Your task to perform on an android device: check the backup settings in the google photos Image 0: 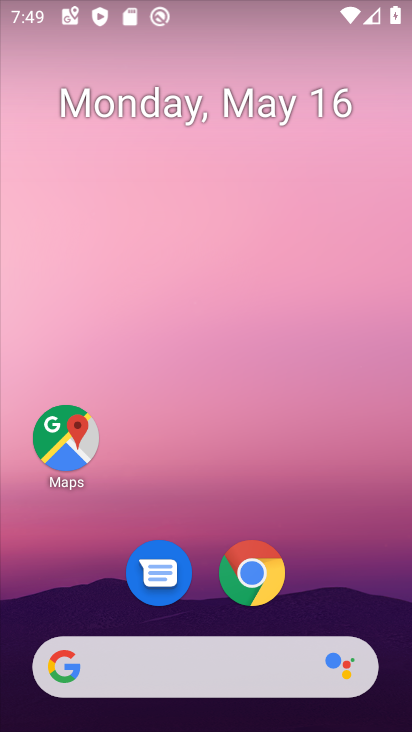
Step 0: drag from (352, 570) to (346, 168)
Your task to perform on an android device: check the backup settings in the google photos Image 1: 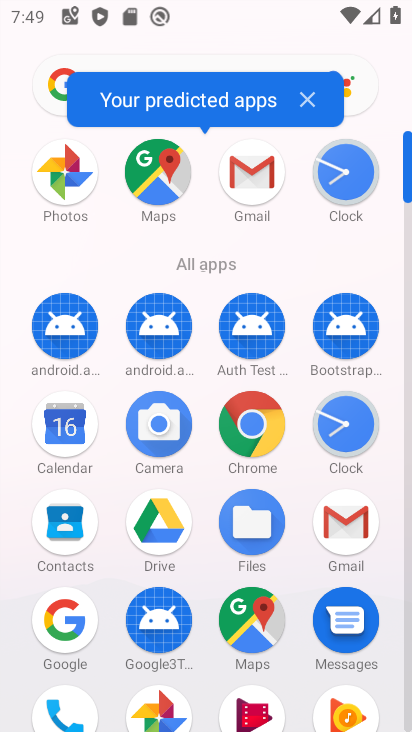
Step 1: drag from (221, 652) to (224, 452)
Your task to perform on an android device: check the backup settings in the google photos Image 2: 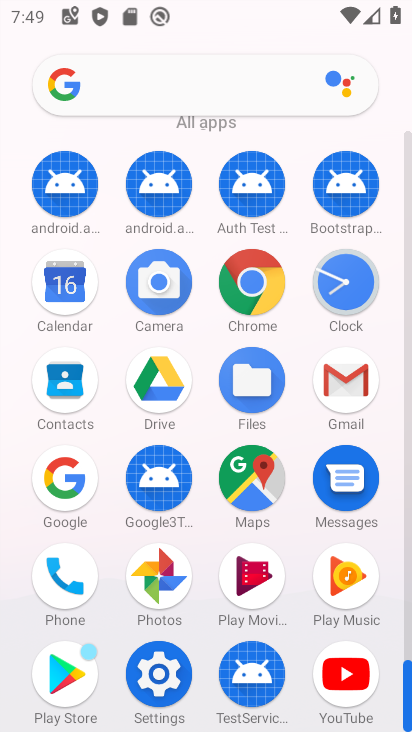
Step 2: click (182, 579)
Your task to perform on an android device: check the backup settings in the google photos Image 3: 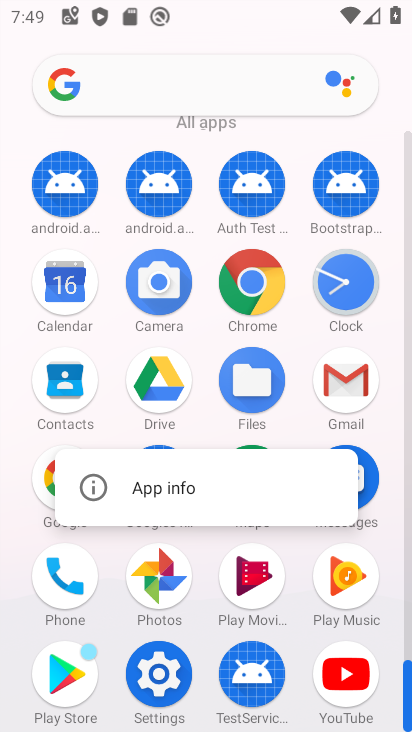
Step 3: click (167, 588)
Your task to perform on an android device: check the backup settings in the google photos Image 4: 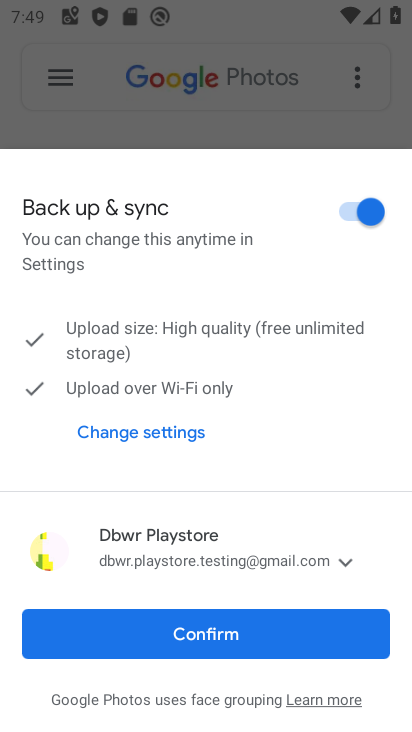
Step 4: click (176, 626)
Your task to perform on an android device: check the backup settings in the google photos Image 5: 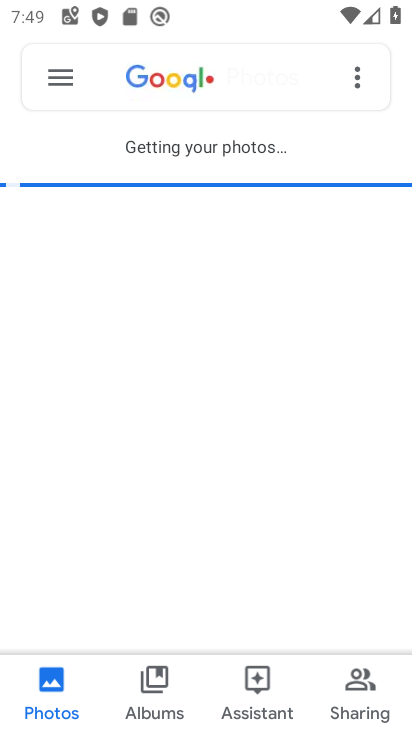
Step 5: click (60, 77)
Your task to perform on an android device: check the backup settings in the google photos Image 6: 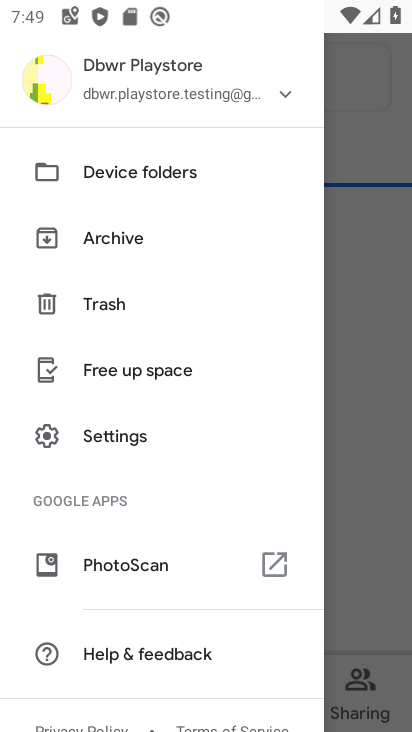
Step 6: click (132, 442)
Your task to perform on an android device: check the backup settings in the google photos Image 7: 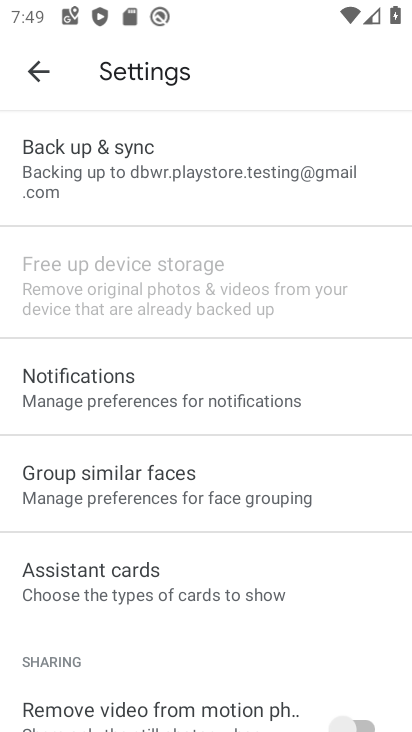
Step 7: click (170, 178)
Your task to perform on an android device: check the backup settings in the google photos Image 8: 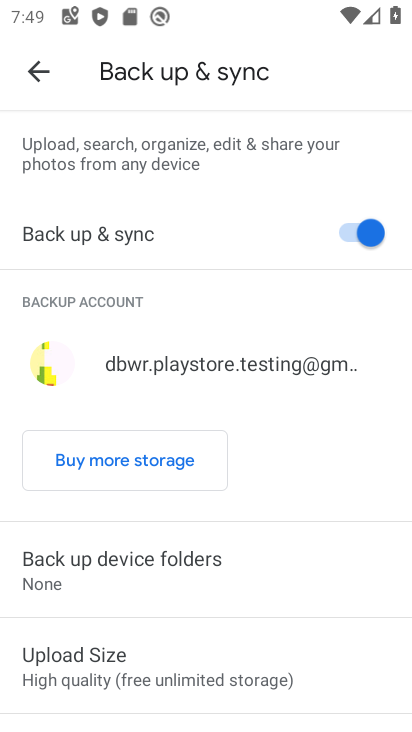
Step 8: task complete